Your task to perform on an android device: Do I have any events tomorrow? Image 0: 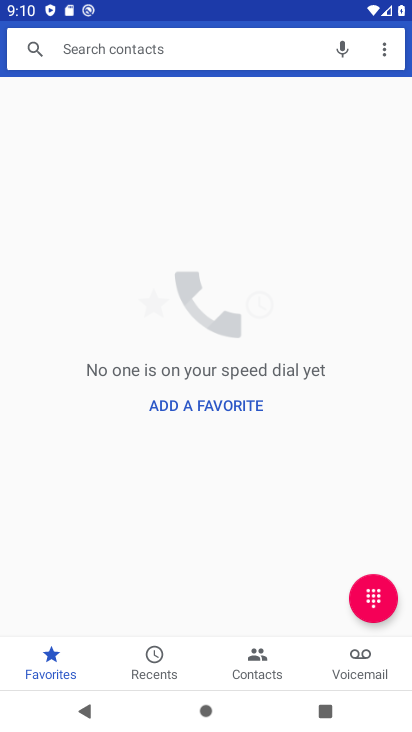
Step 0: press home button
Your task to perform on an android device: Do I have any events tomorrow? Image 1: 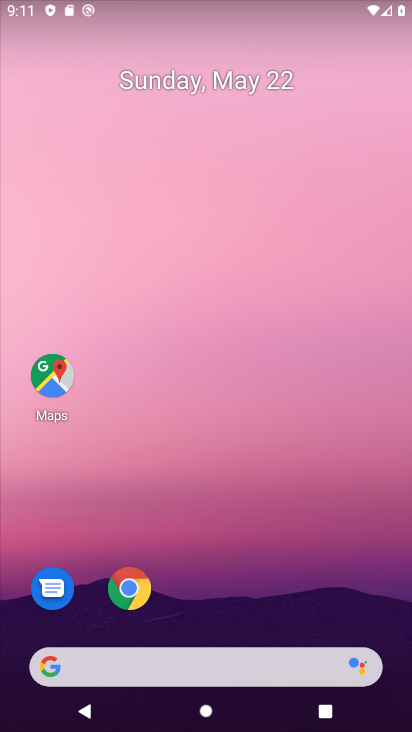
Step 1: drag from (247, 592) to (274, 73)
Your task to perform on an android device: Do I have any events tomorrow? Image 2: 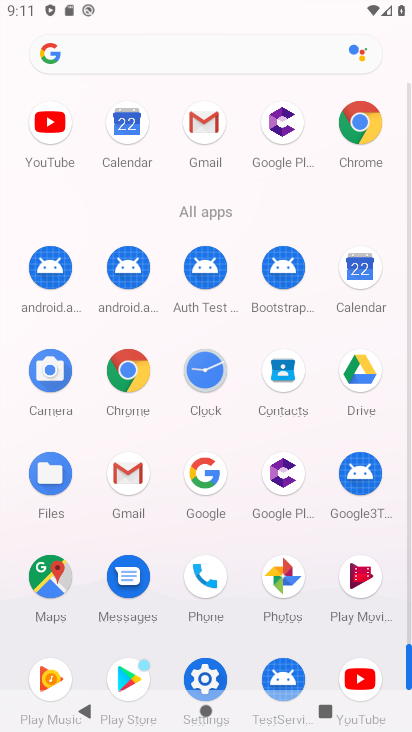
Step 2: click (362, 264)
Your task to perform on an android device: Do I have any events tomorrow? Image 3: 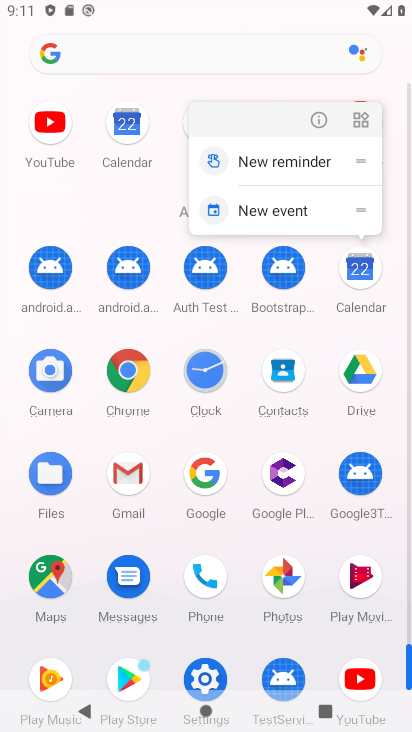
Step 3: click (364, 276)
Your task to perform on an android device: Do I have any events tomorrow? Image 4: 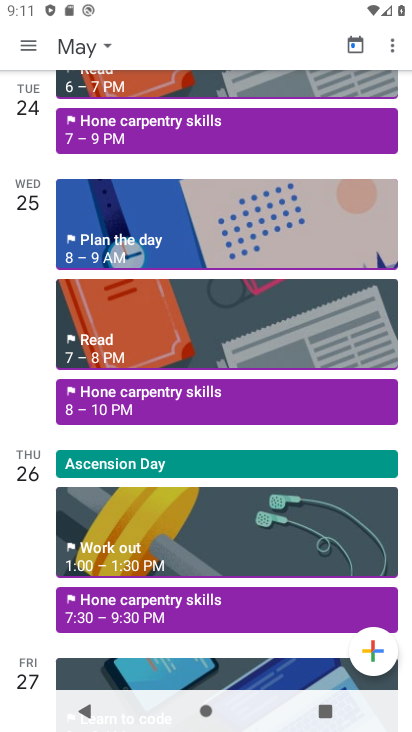
Step 4: click (76, 43)
Your task to perform on an android device: Do I have any events tomorrow? Image 5: 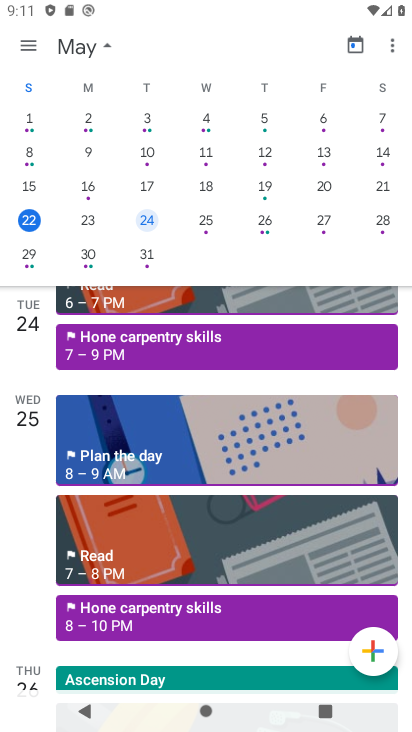
Step 5: click (149, 215)
Your task to perform on an android device: Do I have any events tomorrow? Image 6: 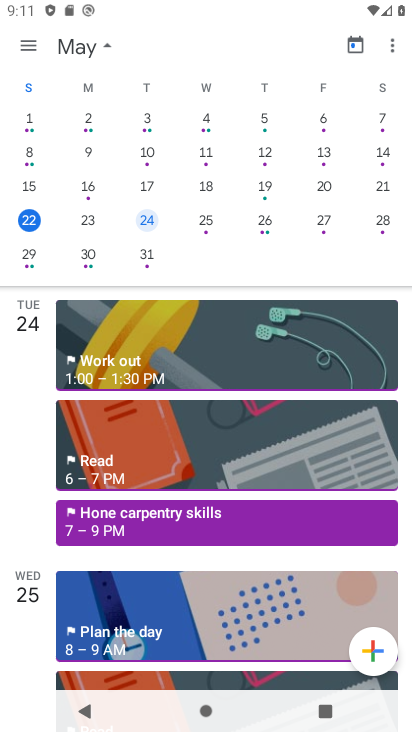
Step 6: task complete